Your task to perform on an android device: Search for razer kraken on amazon.com, select the first entry, add it to the cart, then select checkout. Image 0: 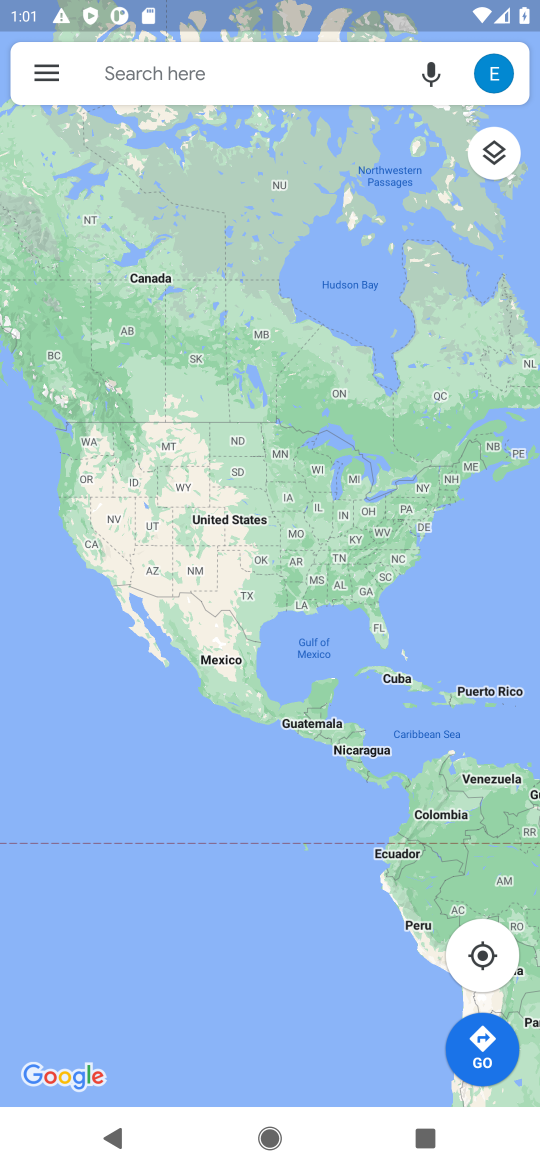
Step 0: press home button
Your task to perform on an android device: Search for razer kraken on amazon.com, select the first entry, add it to the cart, then select checkout. Image 1: 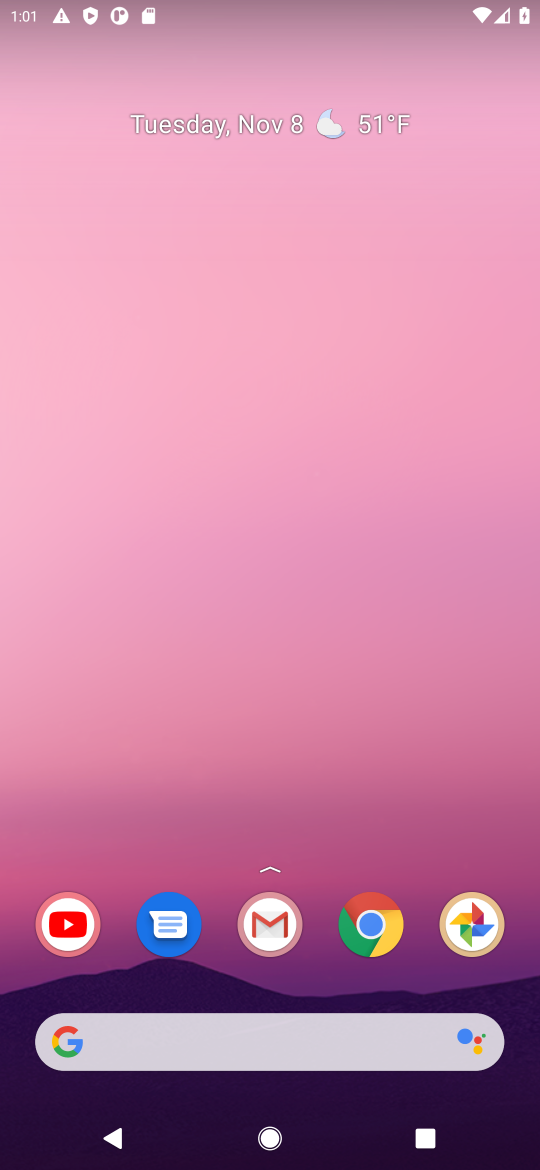
Step 1: click (363, 934)
Your task to perform on an android device: Search for razer kraken on amazon.com, select the first entry, add it to the cart, then select checkout. Image 2: 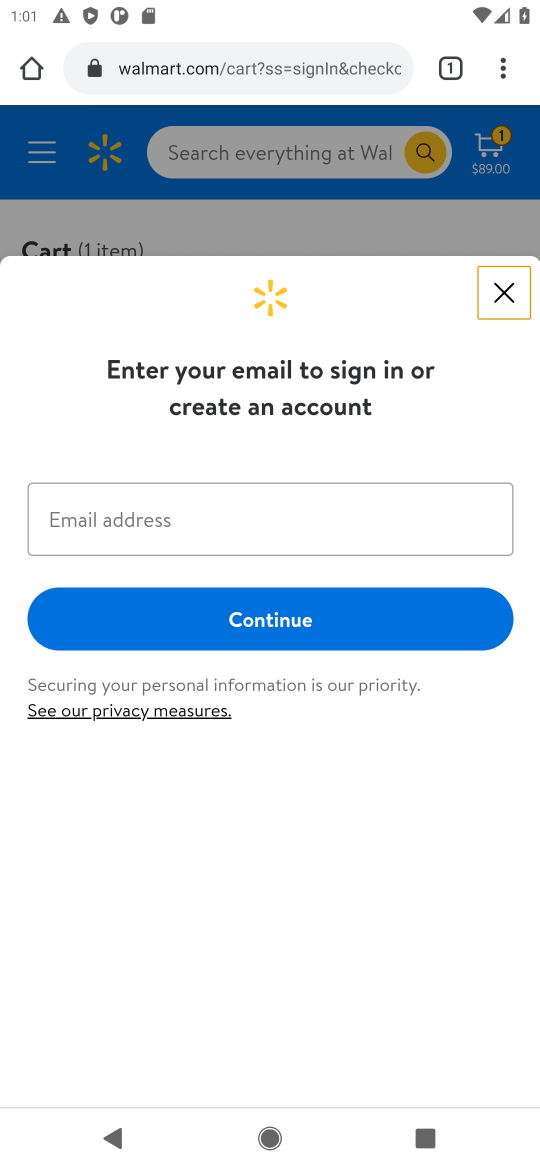
Step 2: click (404, 61)
Your task to perform on an android device: Search for razer kraken on amazon.com, select the first entry, add it to the cart, then select checkout. Image 3: 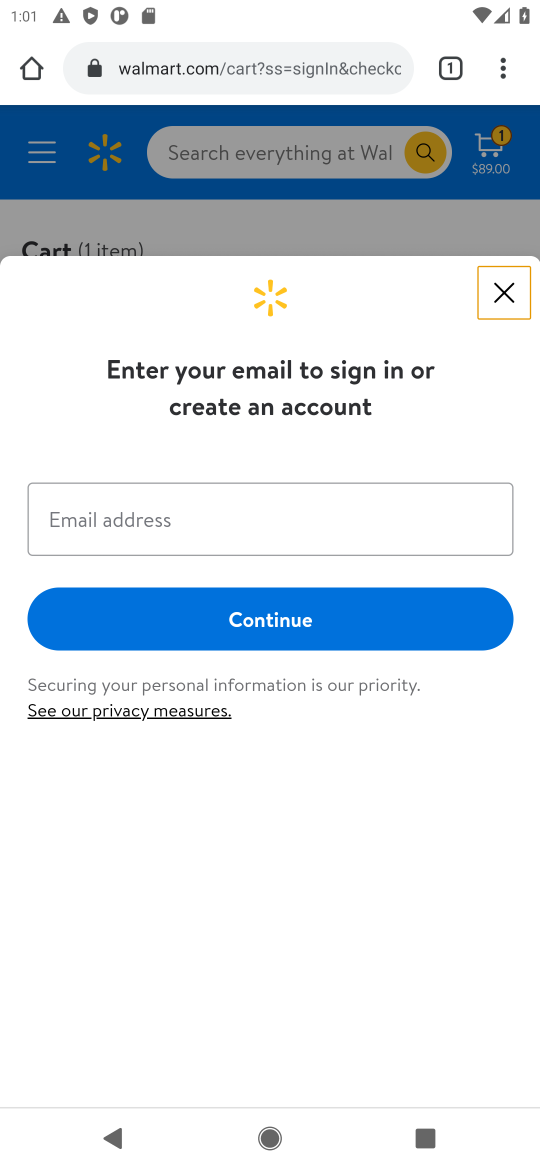
Step 3: click (150, 69)
Your task to perform on an android device: Search for razer kraken on amazon.com, select the first entry, add it to the cart, then select checkout. Image 4: 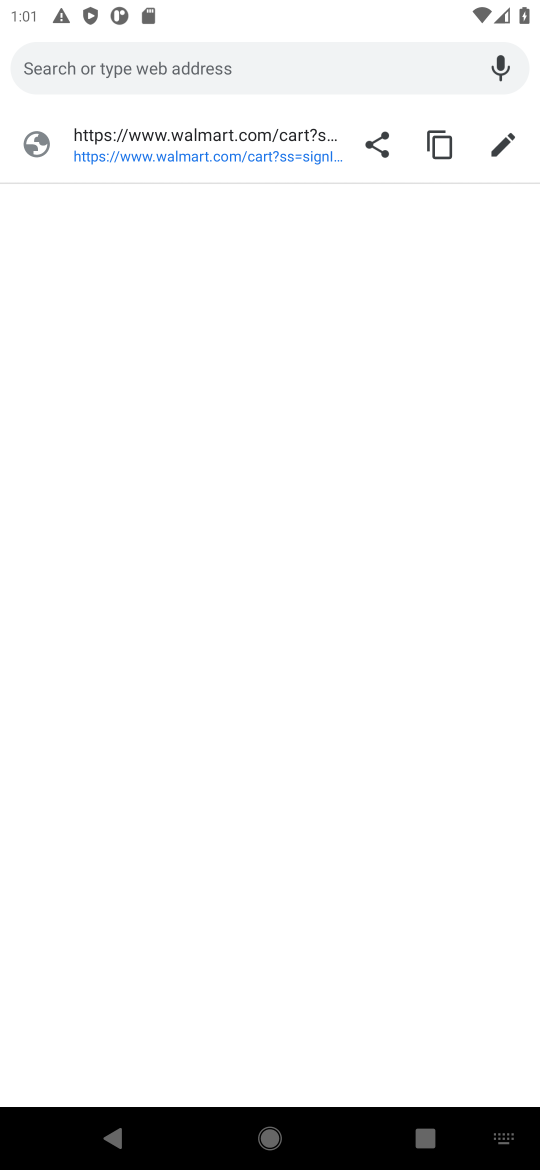
Step 4: type "amazon"
Your task to perform on an android device: Search for razer kraken on amazon.com, select the first entry, add it to the cart, then select checkout. Image 5: 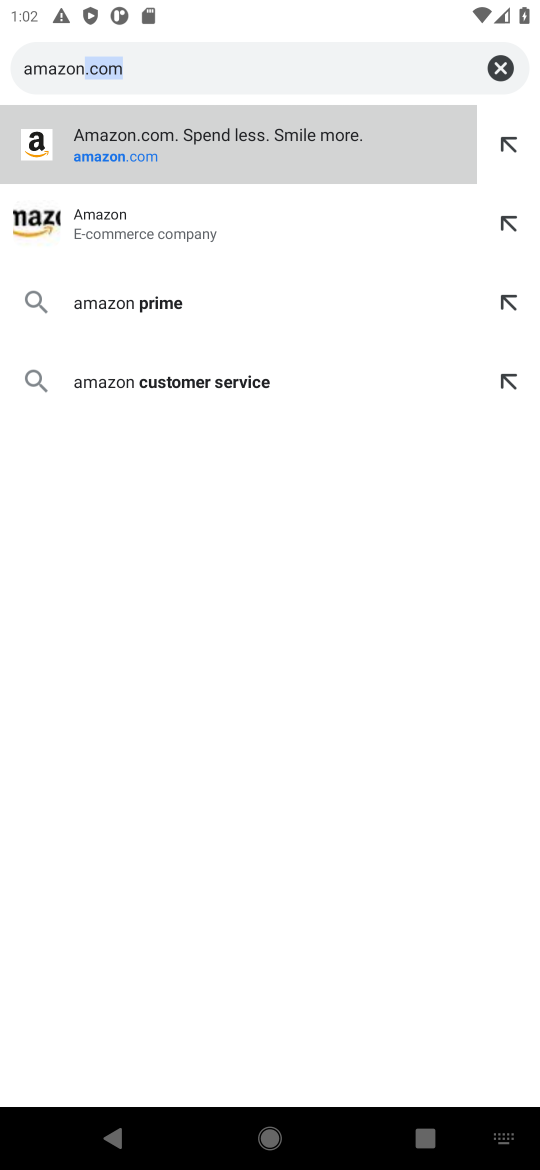
Step 5: click (139, 130)
Your task to perform on an android device: Search for razer kraken on amazon.com, select the first entry, add it to the cart, then select checkout. Image 6: 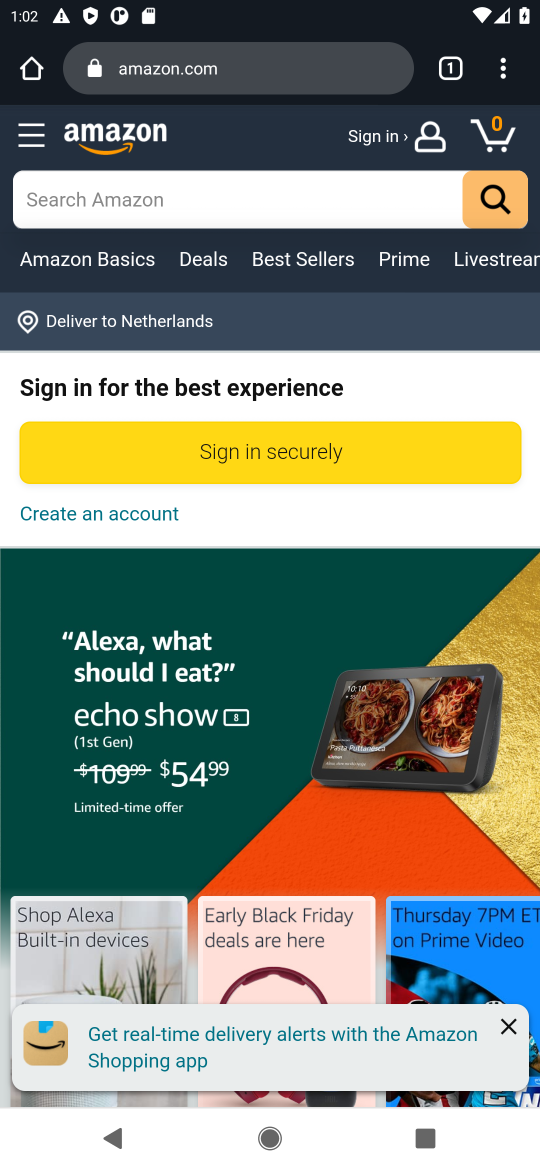
Step 6: click (176, 214)
Your task to perform on an android device: Search for razer kraken on amazon.com, select the first entry, add it to the cart, then select checkout. Image 7: 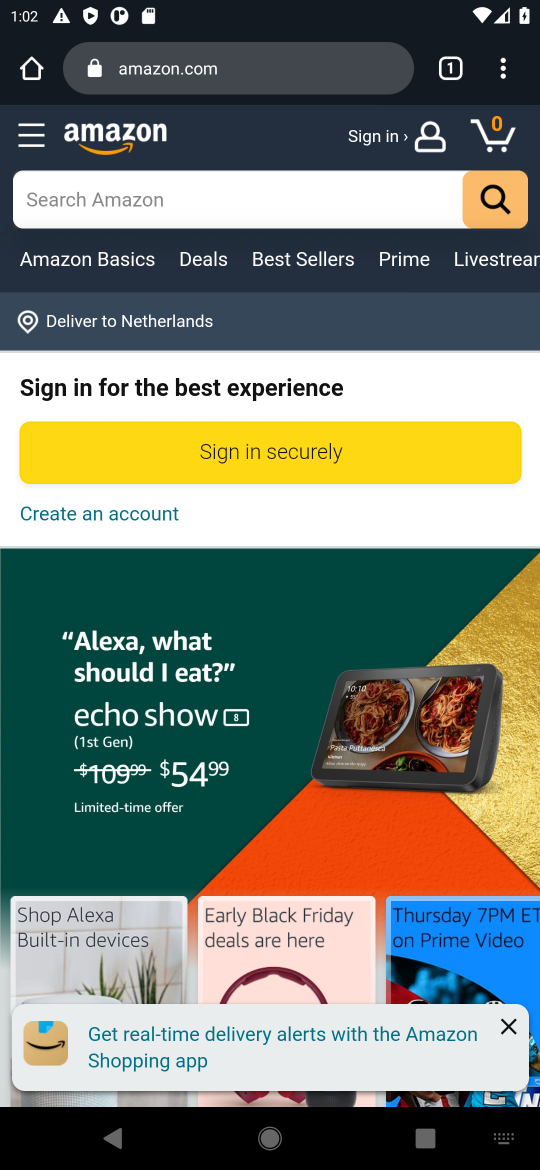
Step 7: type "razer kraken"
Your task to perform on an android device: Search for razer kraken on amazon.com, select the first entry, add it to the cart, then select checkout. Image 8: 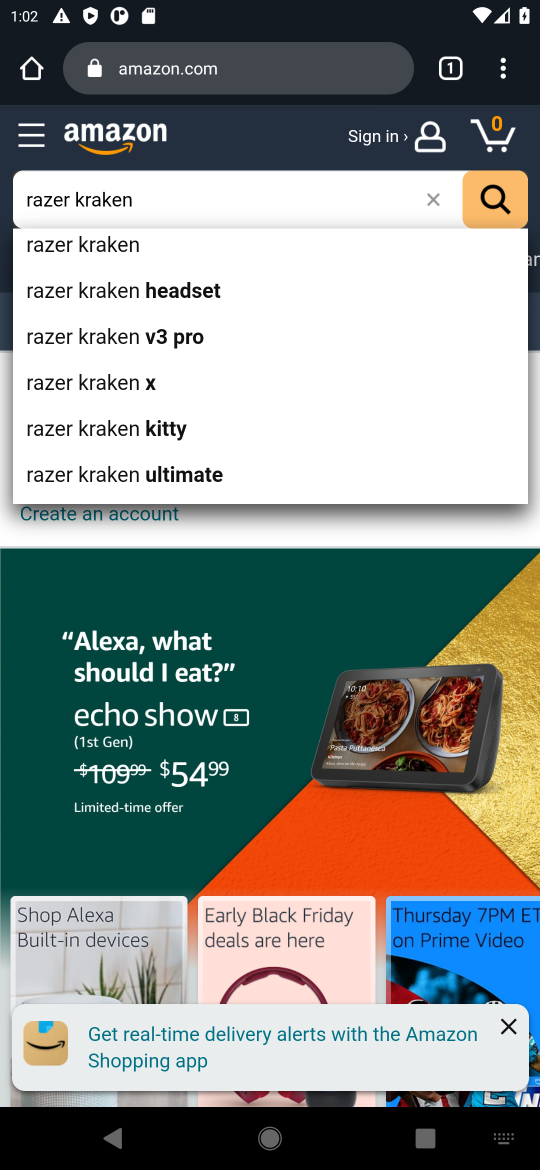
Step 8: click (497, 207)
Your task to perform on an android device: Search for razer kraken on amazon.com, select the first entry, add it to the cart, then select checkout. Image 9: 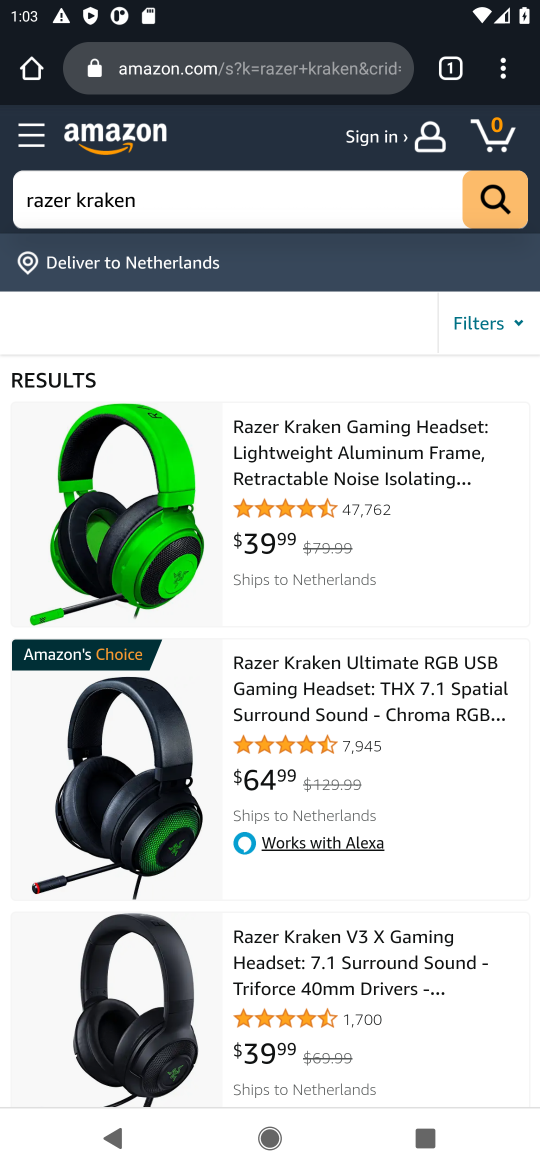
Step 9: click (350, 449)
Your task to perform on an android device: Search for razer kraken on amazon.com, select the first entry, add it to the cart, then select checkout. Image 10: 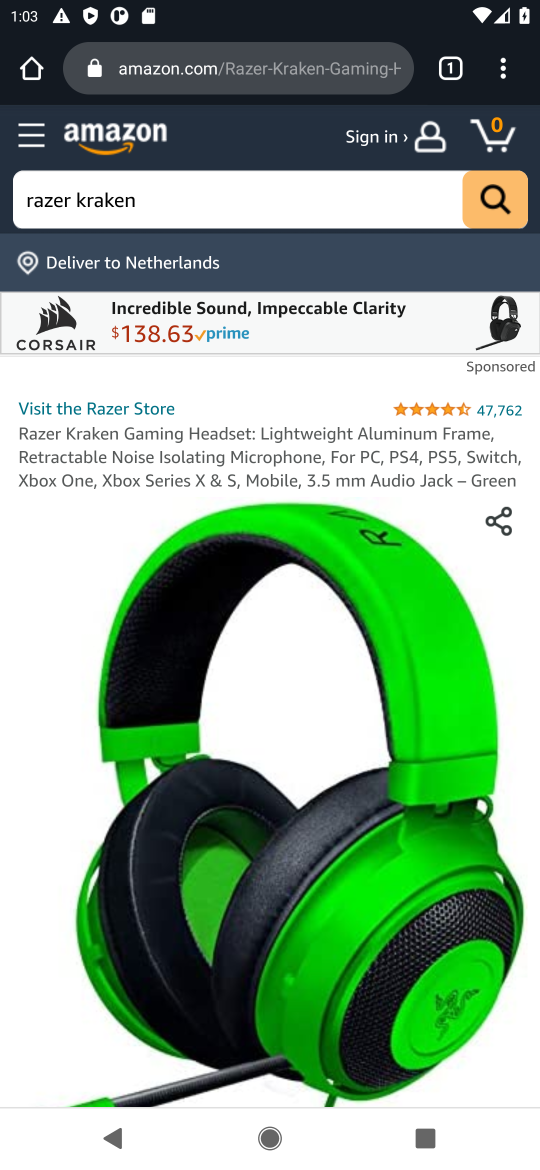
Step 10: drag from (256, 587) to (224, 218)
Your task to perform on an android device: Search for razer kraken on amazon.com, select the first entry, add it to the cart, then select checkout. Image 11: 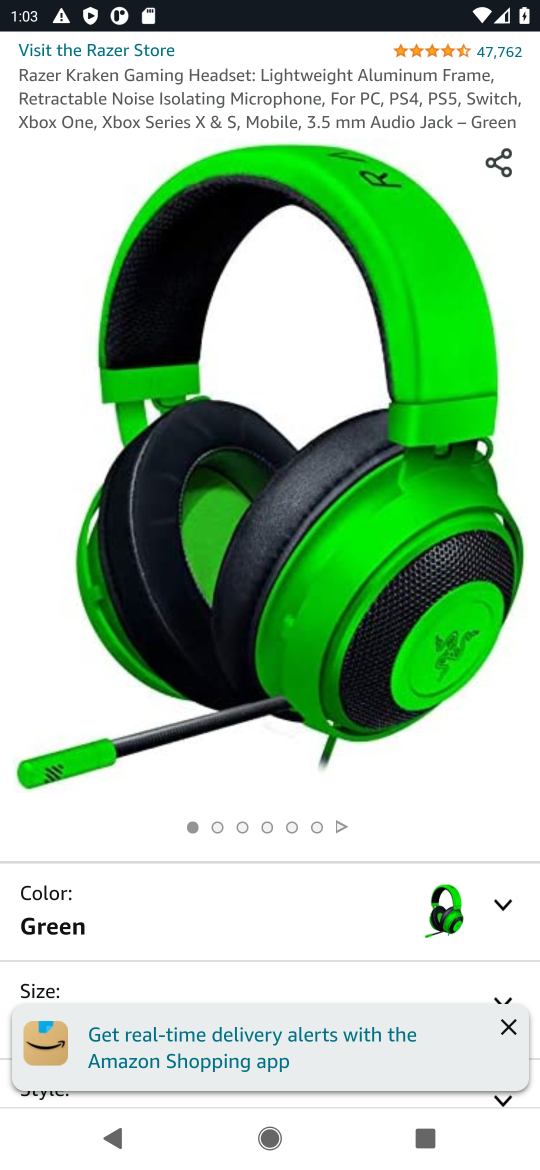
Step 11: drag from (176, 971) to (200, 617)
Your task to perform on an android device: Search for razer kraken on amazon.com, select the first entry, add it to the cart, then select checkout. Image 12: 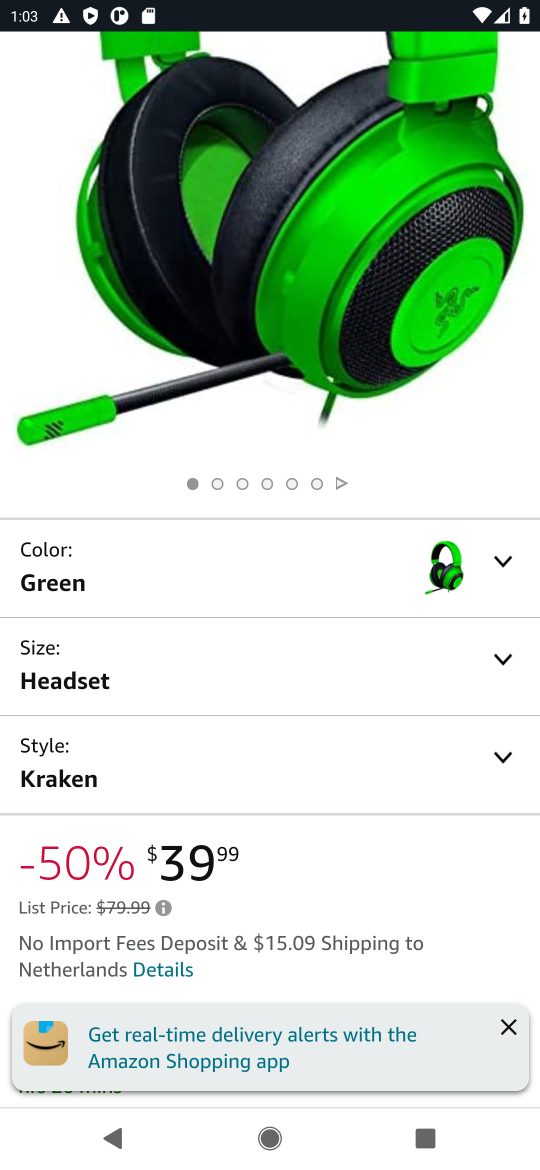
Step 12: drag from (252, 877) to (283, 313)
Your task to perform on an android device: Search for razer kraken on amazon.com, select the first entry, add it to the cart, then select checkout. Image 13: 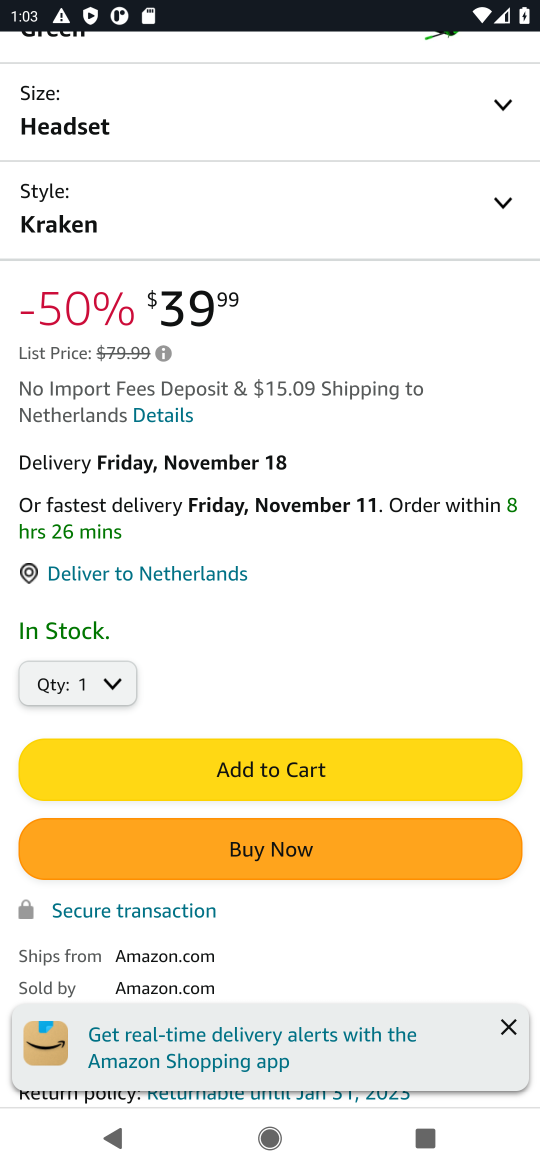
Step 13: click (408, 754)
Your task to perform on an android device: Search for razer kraken on amazon.com, select the first entry, add it to the cart, then select checkout. Image 14: 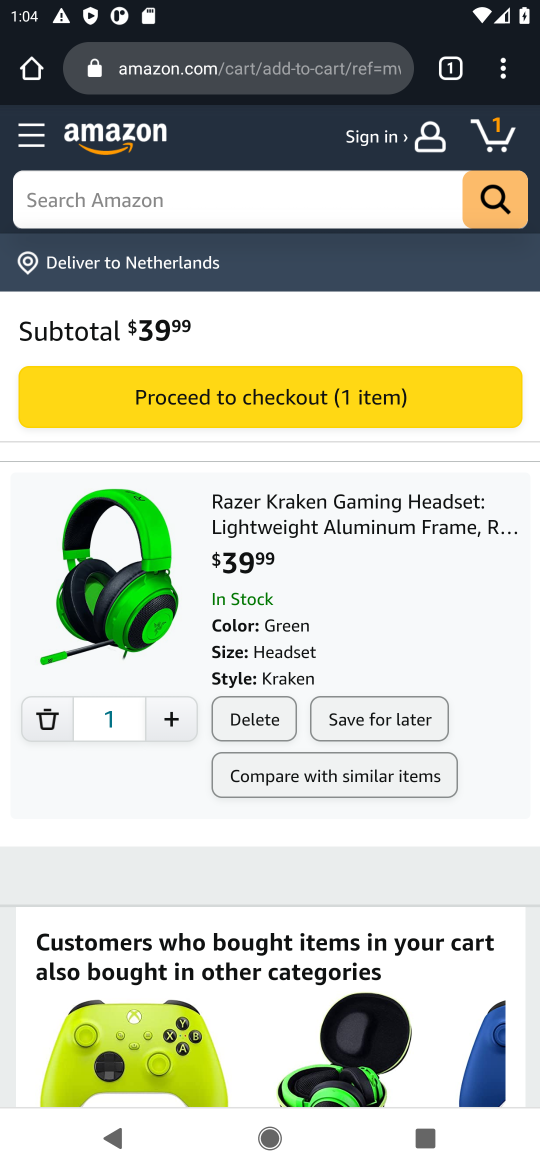
Step 14: click (225, 410)
Your task to perform on an android device: Search for razer kraken on amazon.com, select the first entry, add it to the cart, then select checkout. Image 15: 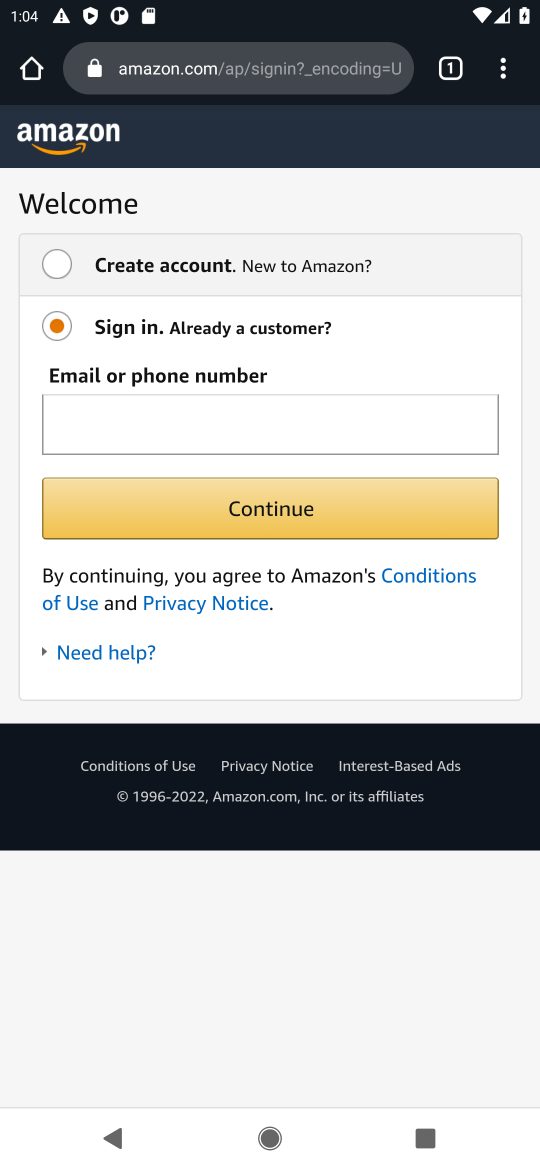
Step 15: task complete